Your task to perform on an android device: Set the phone to "Do not disturb". Image 0: 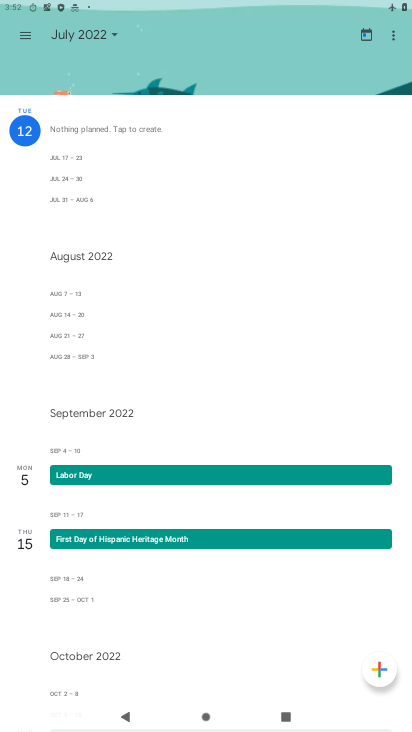
Step 0: drag from (95, 6) to (77, 449)
Your task to perform on an android device: Set the phone to "Do not disturb". Image 1: 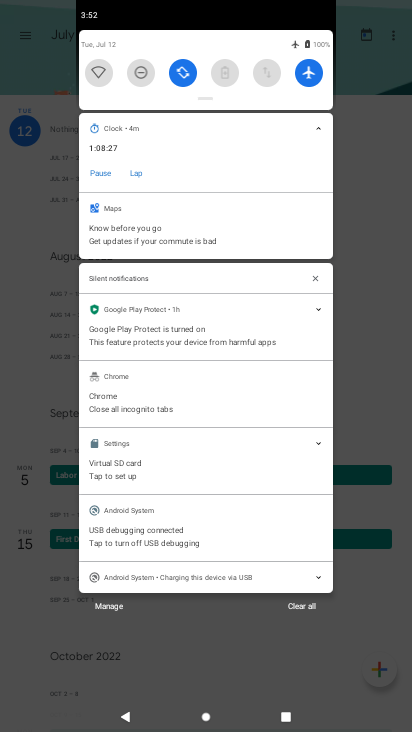
Step 1: click (139, 70)
Your task to perform on an android device: Set the phone to "Do not disturb". Image 2: 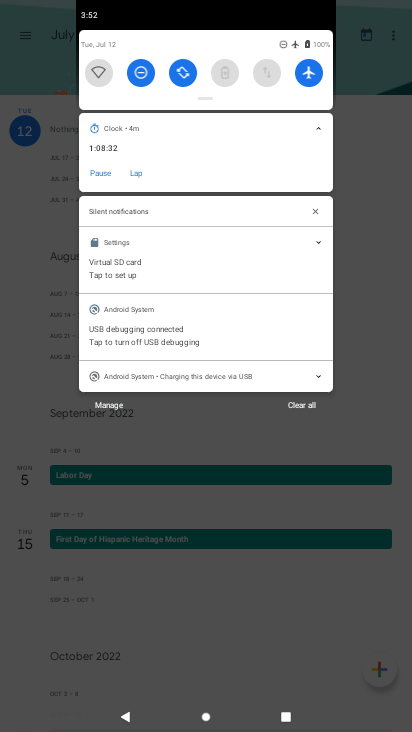
Step 2: task complete